Your task to perform on an android device: check storage Image 0: 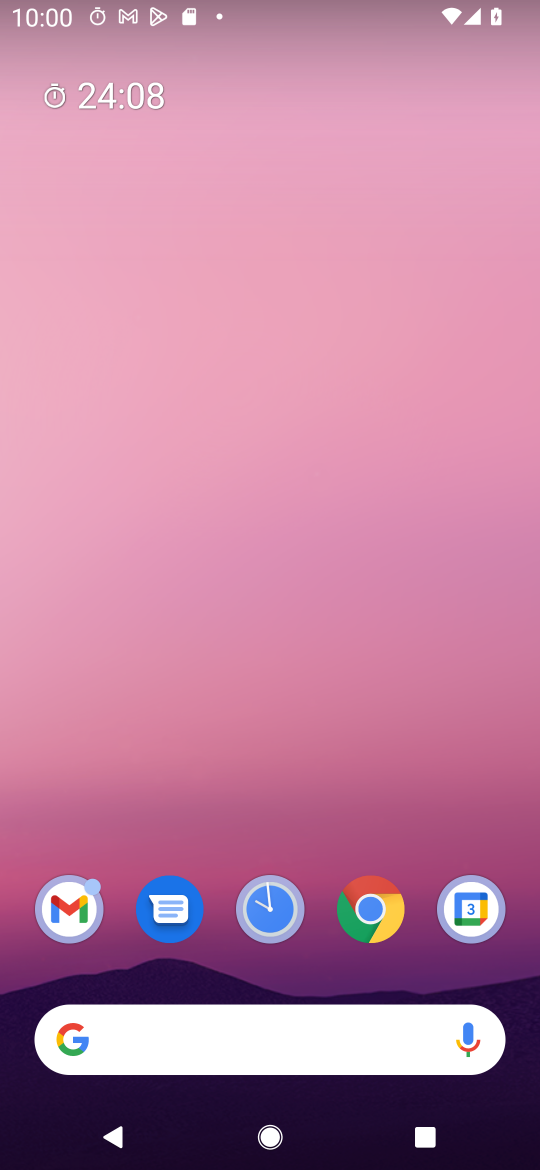
Step 0: drag from (406, 788) to (433, 129)
Your task to perform on an android device: check storage Image 1: 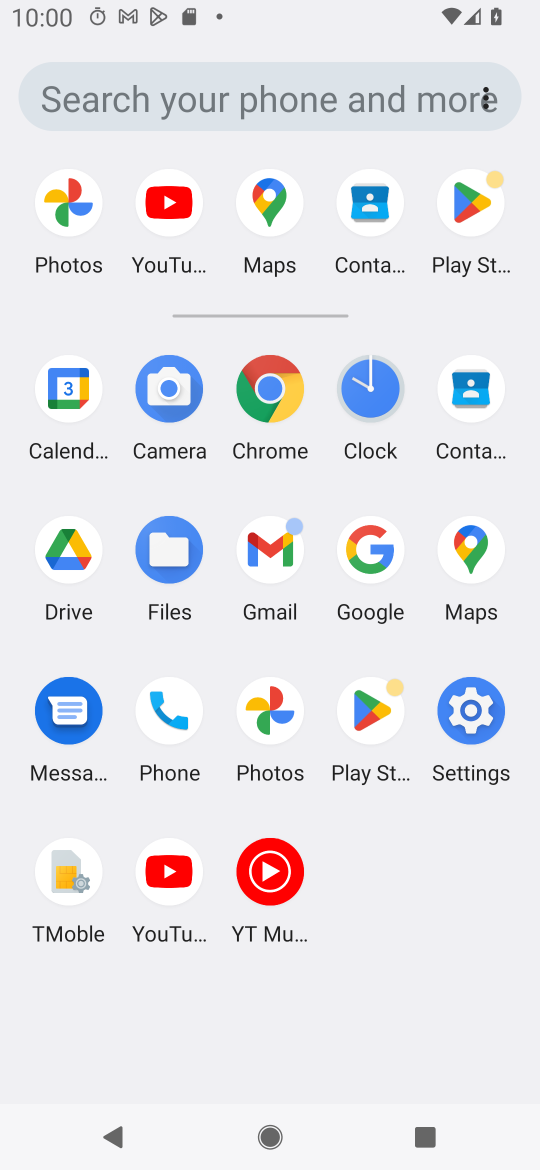
Step 1: click (465, 715)
Your task to perform on an android device: check storage Image 2: 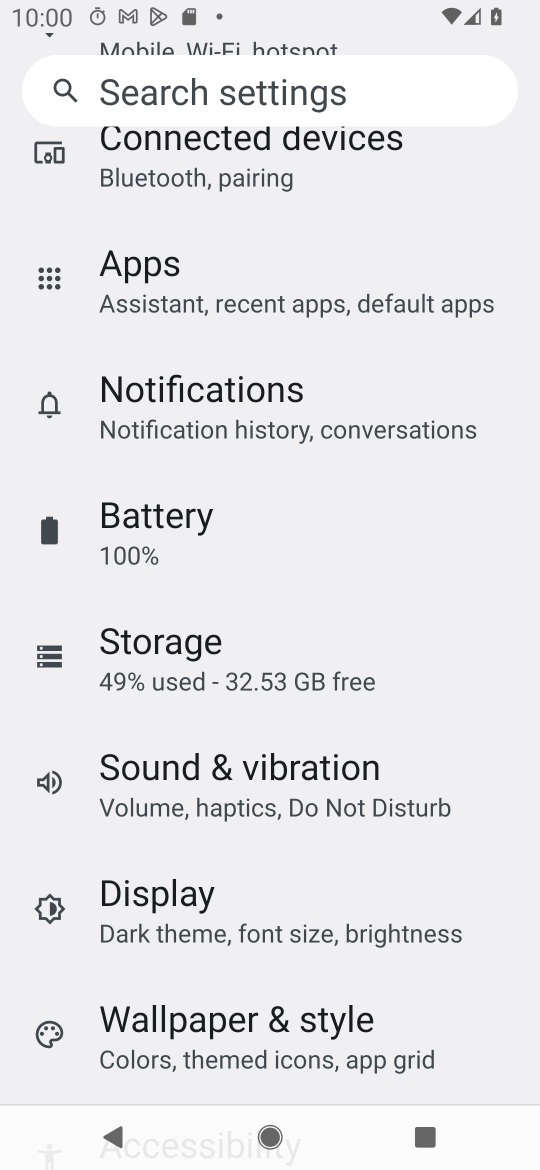
Step 2: drag from (495, 526) to (499, 616)
Your task to perform on an android device: check storage Image 3: 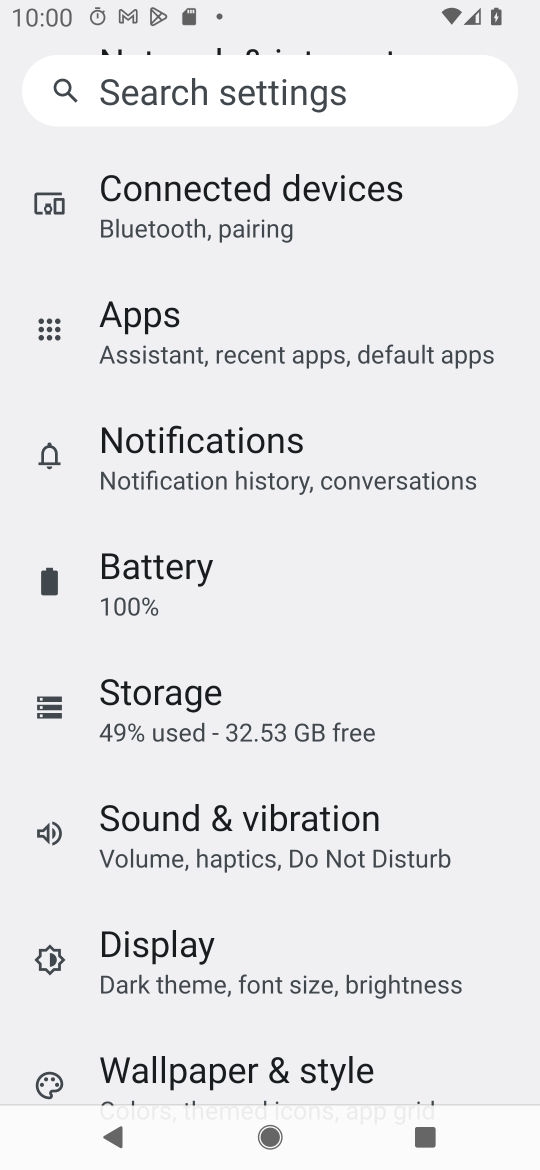
Step 3: drag from (502, 417) to (496, 623)
Your task to perform on an android device: check storage Image 4: 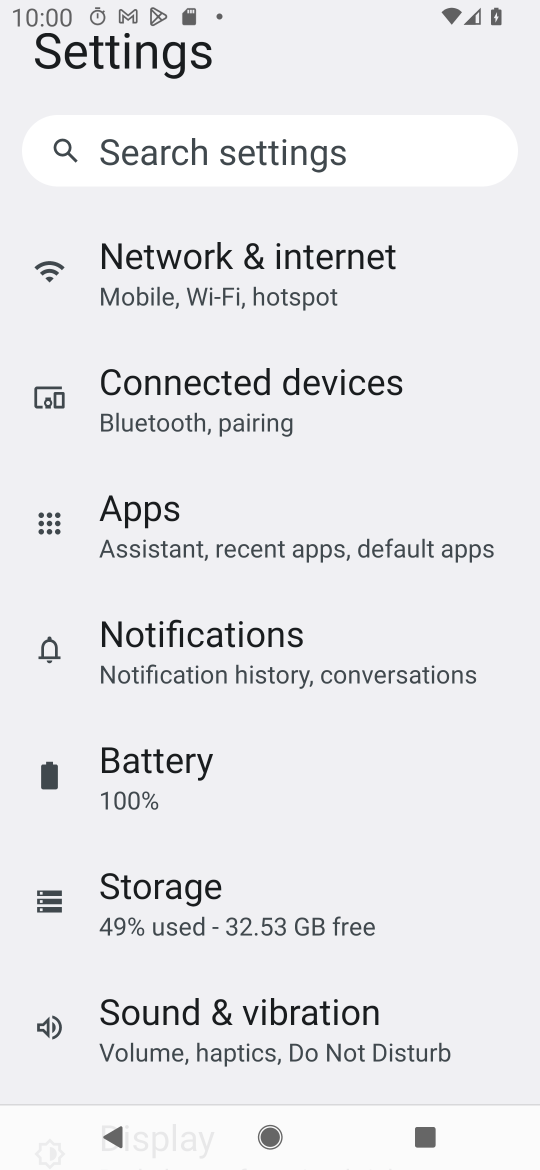
Step 4: drag from (479, 354) to (487, 606)
Your task to perform on an android device: check storage Image 5: 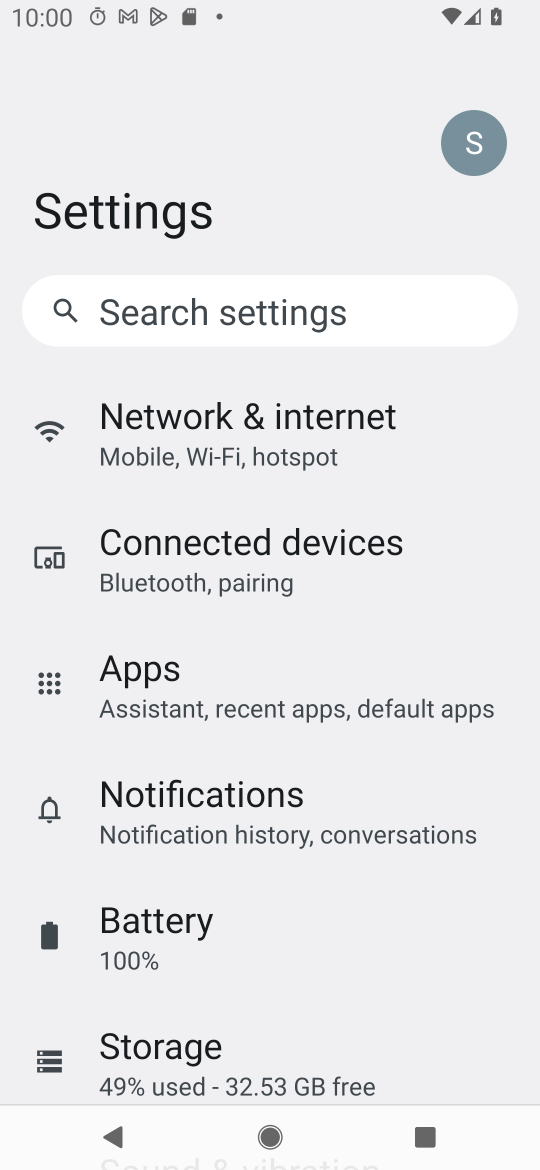
Step 5: drag from (486, 500) to (501, 733)
Your task to perform on an android device: check storage Image 6: 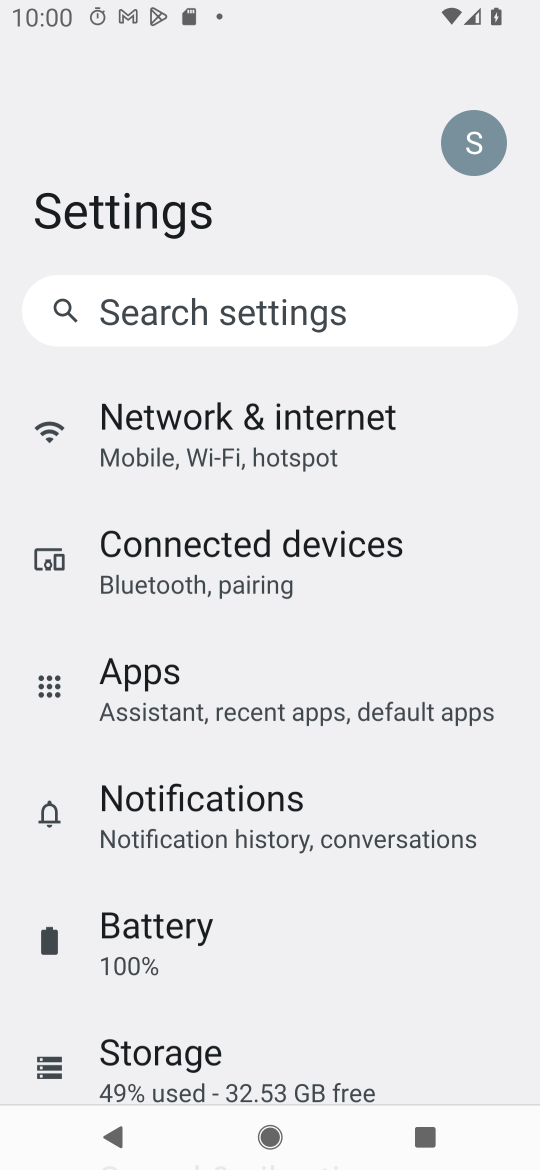
Step 6: drag from (447, 721) to (478, 551)
Your task to perform on an android device: check storage Image 7: 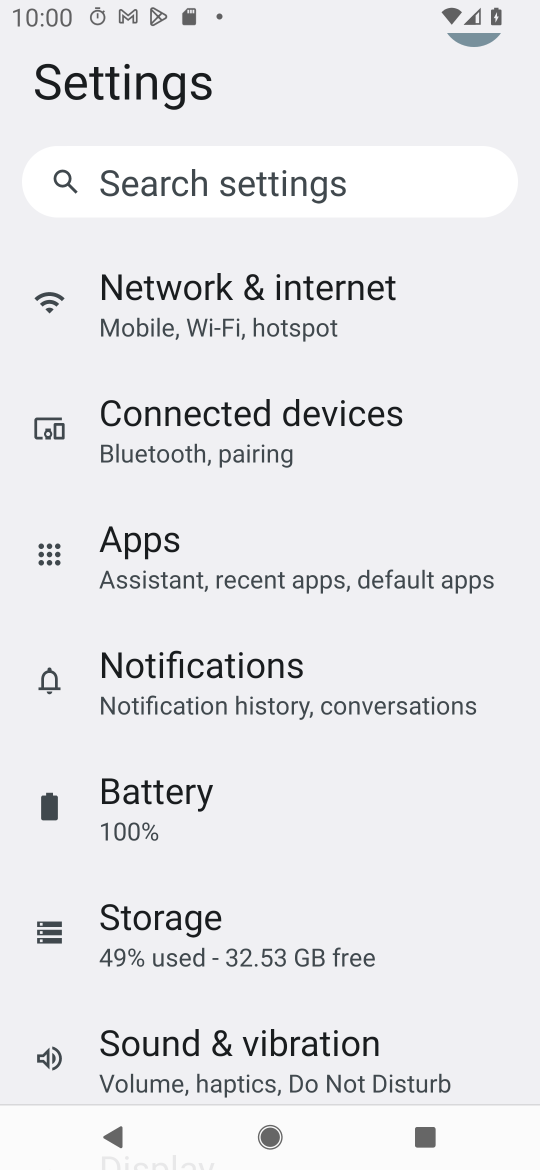
Step 7: drag from (427, 845) to (459, 609)
Your task to perform on an android device: check storage Image 8: 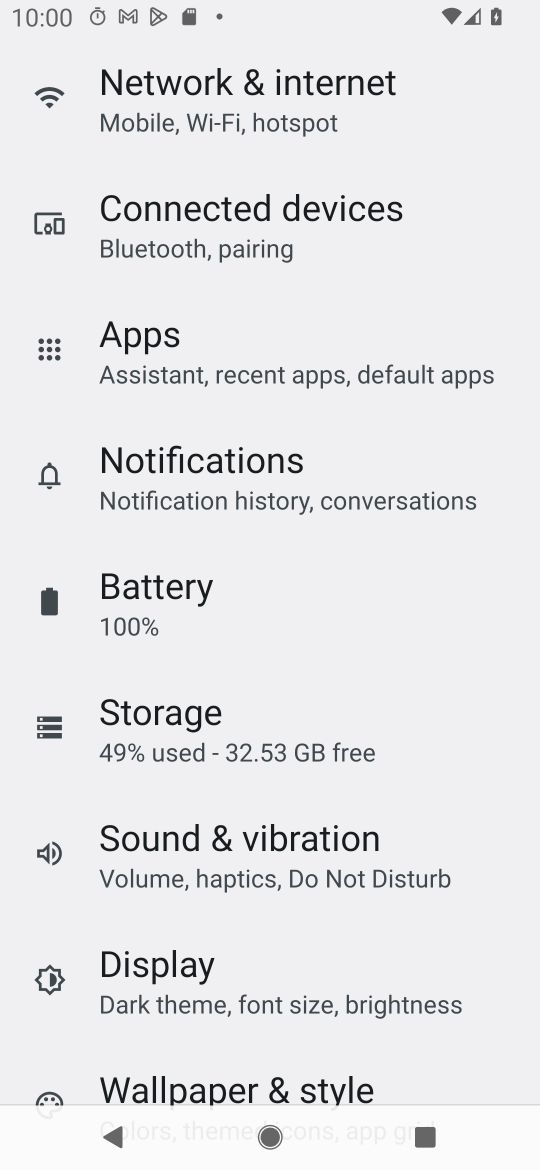
Step 8: drag from (436, 896) to (448, 704)
Your task to perform on an android device: check storage Image 9: 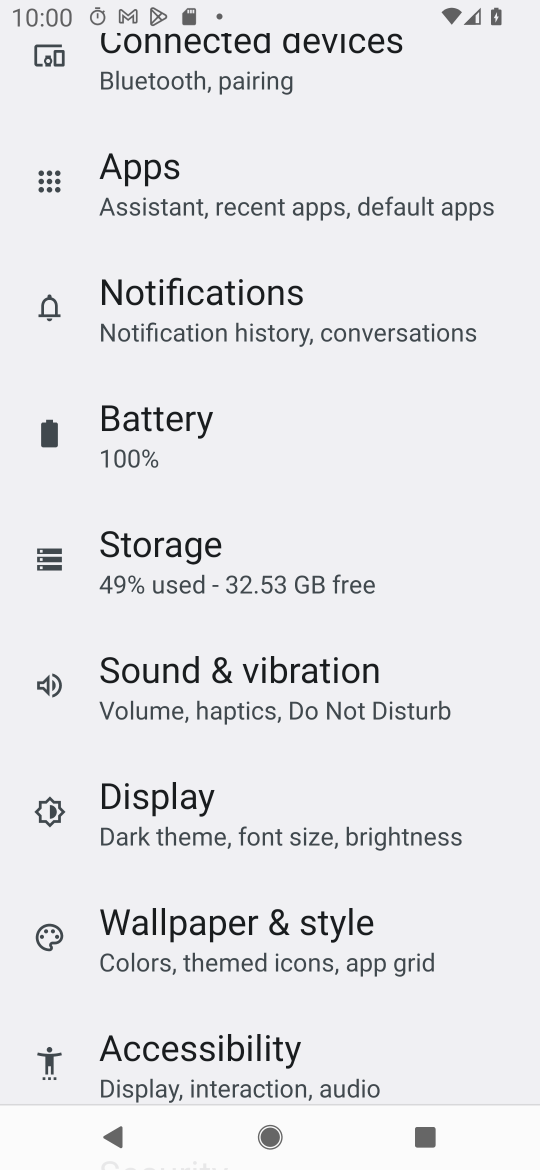
Step 9: click (443, 592)
Your task to perform on an android device: check storage Image 10: 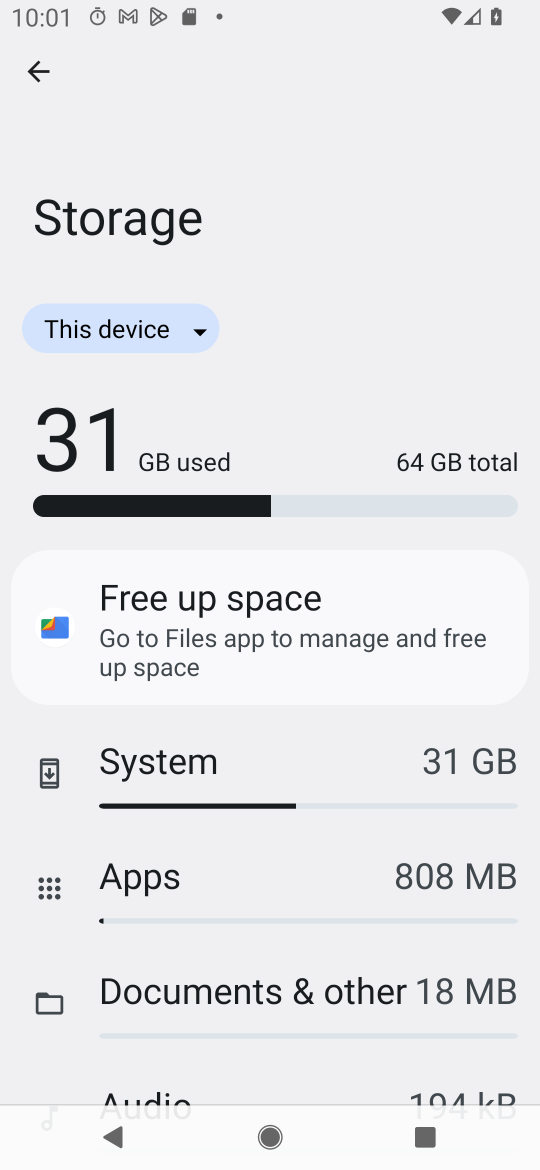
Step 10: task complete